Your task to perform on an android device: Set the phone to "Do not disturb". Image 0: 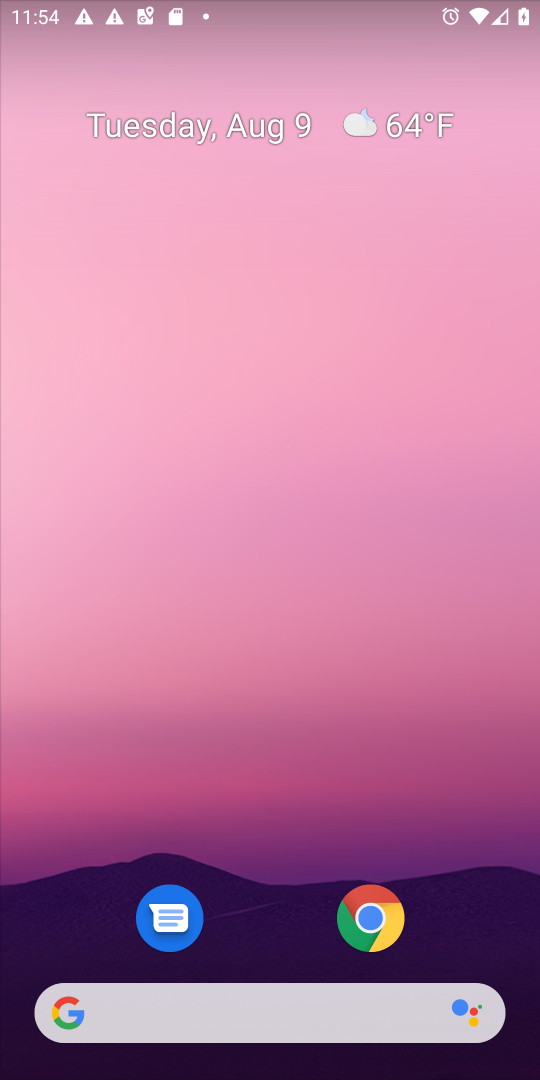
Step 0: drag from (300, 4) to (255, 597)
Your task to perform on an android device: Set the phone to "Do not disturb". Image 1: 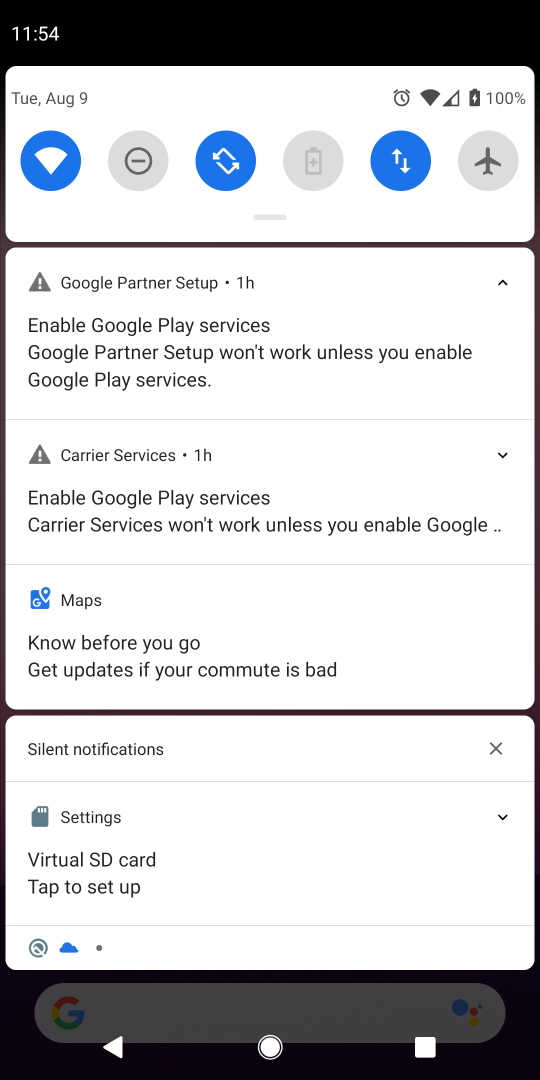
Step 1: click (140, 148)
Your task to perform on an android device: Set the phone to "Do not disturb". Image 2: 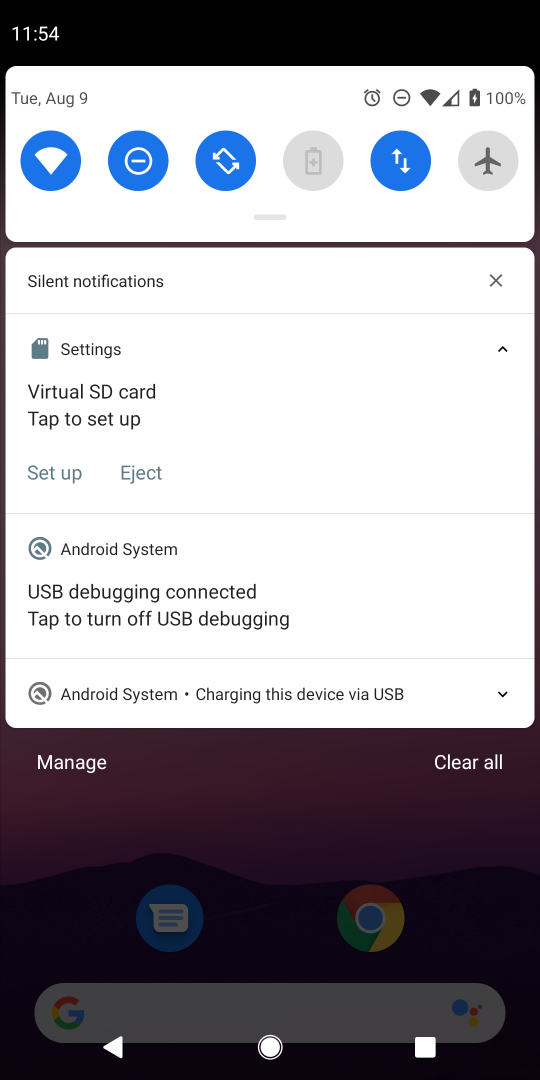
Step 2: task complete